Your task to perform on an android device: move an email to a new category in the gmail app Image 0: 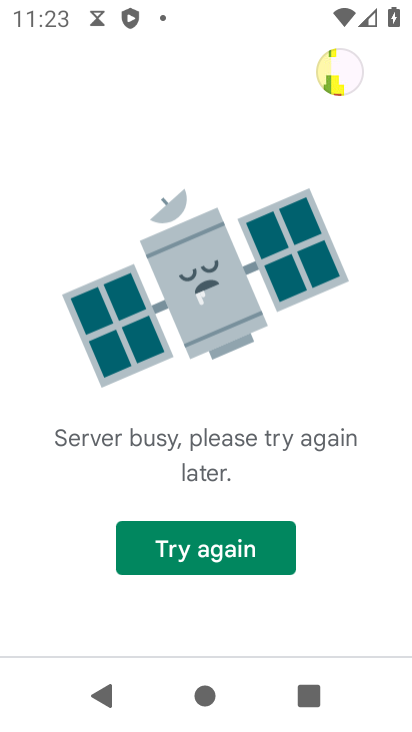
Step 0: press back button
Your task to perform on an android device: move an email to a new category in the gmail app Image 1: 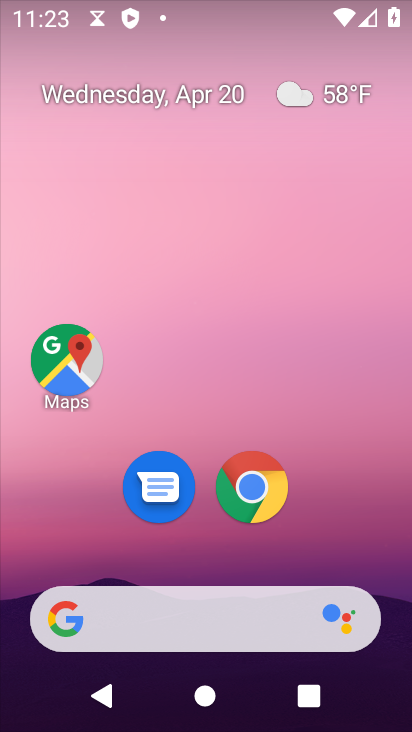
Step 1: drag from (321, 477) to (250, 58)
Your task to perform on an android device: move an email to a new category in the gmail app Image 2: 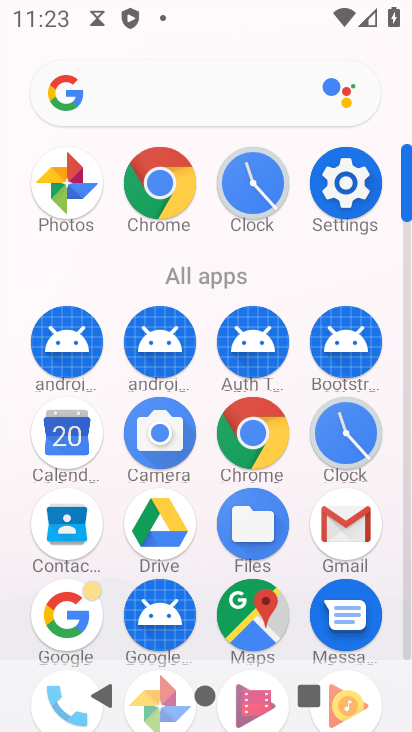
Step 2: drag from (5, 578) to (1, 361)
Your task to perform on an android device: move an email to a new category in the gmail app Image 3: 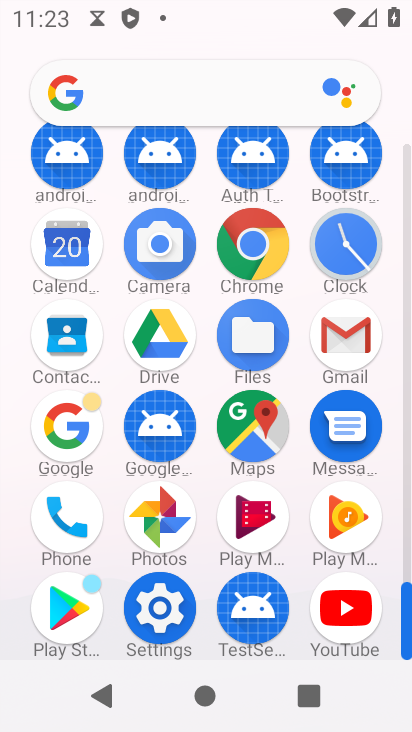
Step 3: click (345, 325)
Your task to perform on an android device: move an email to a new category in the gmail app Image 4: 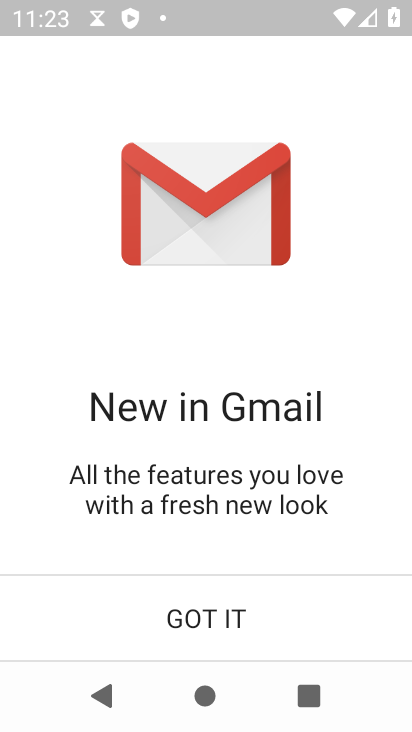
Step 4: click (208, 625)
Your task to perform on an android device: move an email to a new category in the gmail app Image 5: 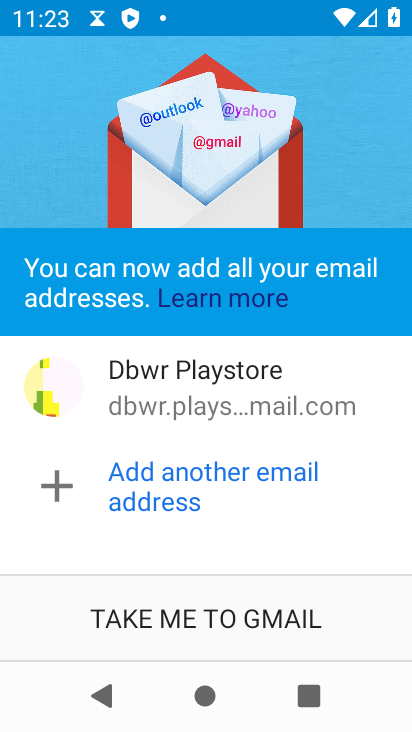
Step 5: click (208, 625)
Your task to perform on an android device: move an email to a new category in the gmail app Image 6: 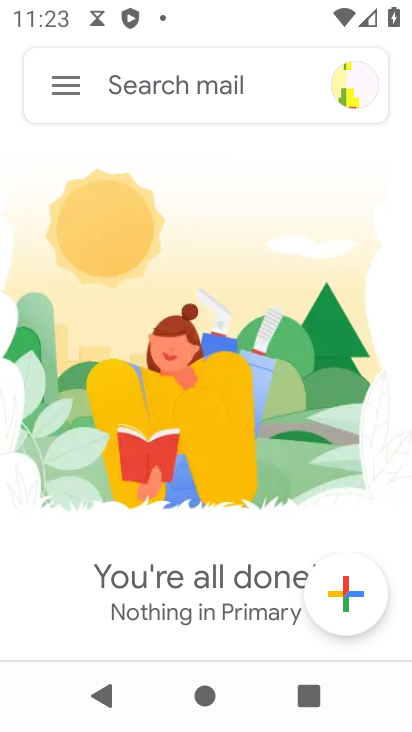
Step 6: click (79, 96)
Your task to perform on an android device: move an email to a new category in the gmail app Image 7: 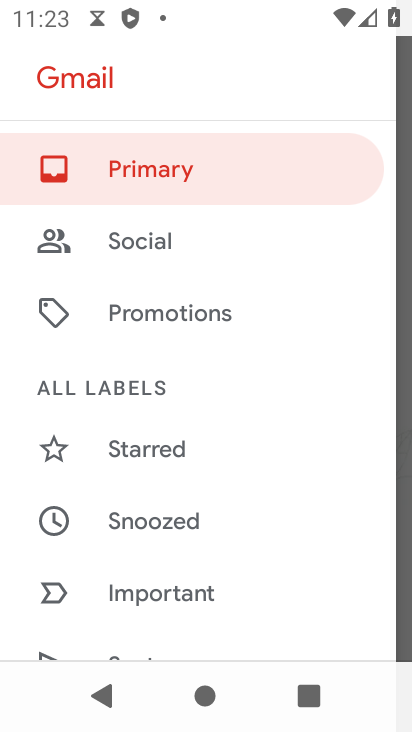
Step 7: drag from (239, 518) to (230, 152)
Your task to perform on an android device: move an email to a new category in the gmail app Image 8: 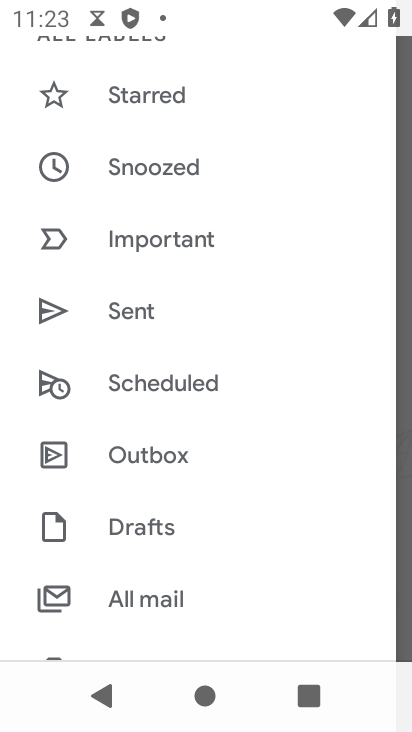
Step 8: drag from (235, 525) to (226, 104)
Your task to perform on an android device: move an email to a new category in the gmail app Image 9: 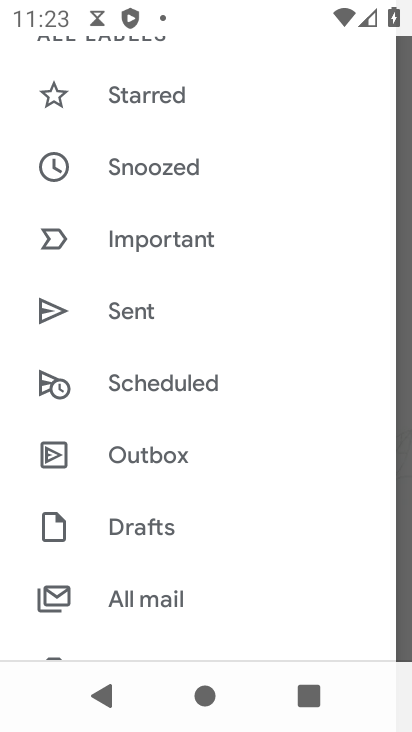
Step 9: drag from (219, 453) to (208, 141)
Your task to perform on an android device: move an email to a new category in the gmail app Image 10: 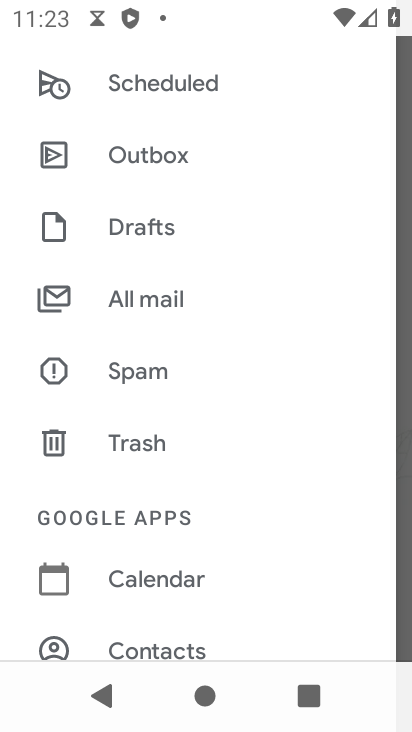
Step 10: drag from (249, 481) to (222, 224)
Your task to perform on an android device: move an email to a new category in the gmail app Image 11: 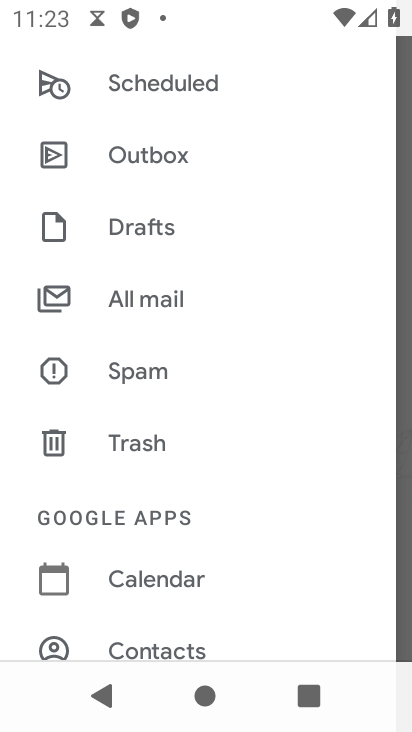
Step 11: drag from (304, 547) to (269, 251)
Your task to perform on an android device: move an email to a new category in the gmail app Image 12: 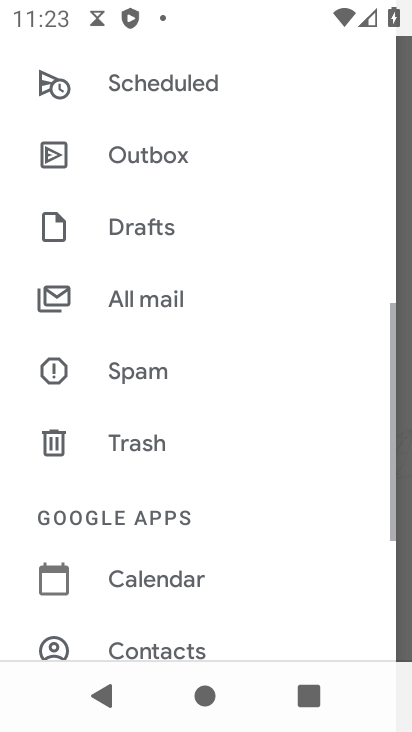
Step 12: click (167, 289)
Your task to perform on an android device: move an email to a new category in the gmail app Image 13: 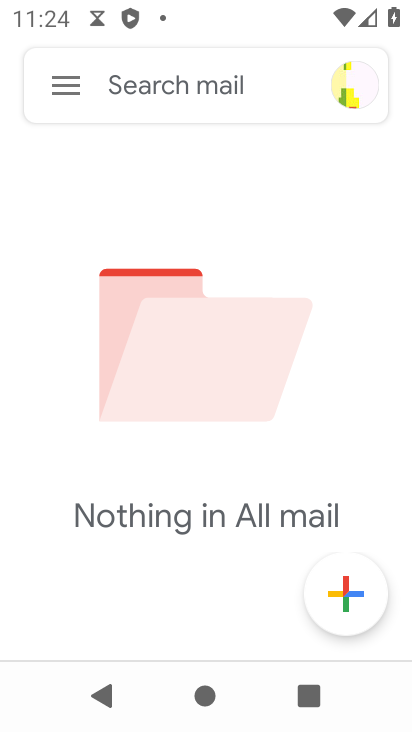
Step 13: click (65, 85)
Your task to perform on an android device: move an email to a new category in the gmail app Image 14: 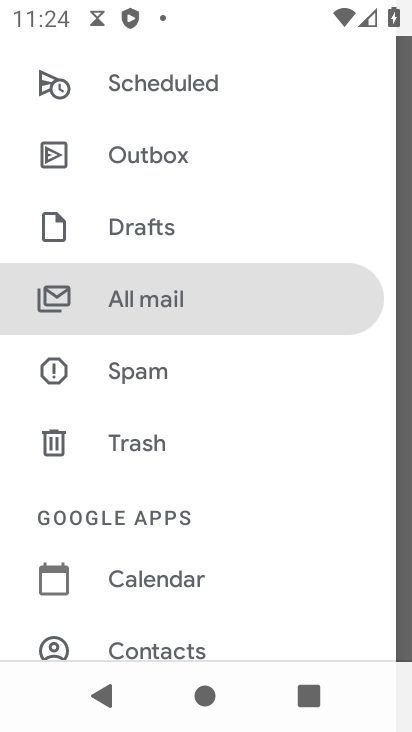
Step 14: drag from (262, 199) to (257, 490)
Your task to perform on an android device: move an email to a new category in the gmail app Image 15: 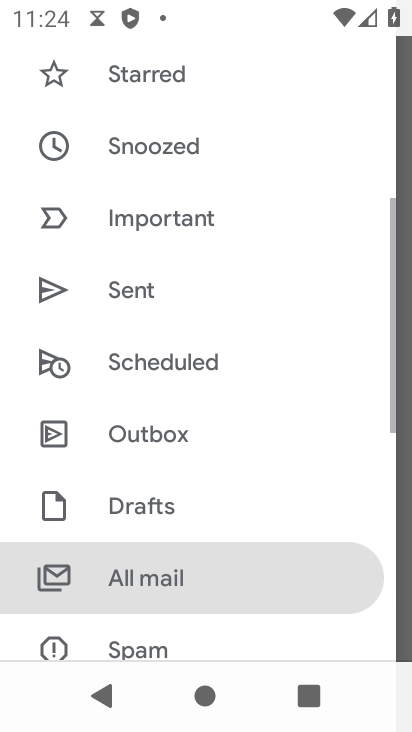
Step 15: drag from (199, 110) to (212, 489)
Your task to perform on an android device: move an email to a new category in the gmail app Image 16: 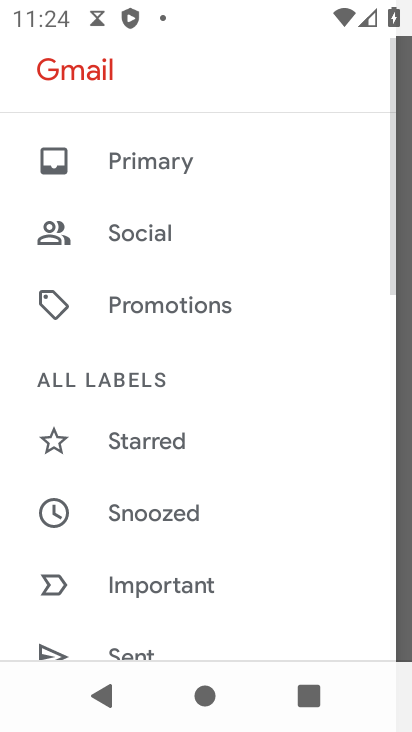
Step 16: drag from (229, 187) to (216, 372)
Your task to perform on an android device: move an email to a new category in the gmail app Image 17: 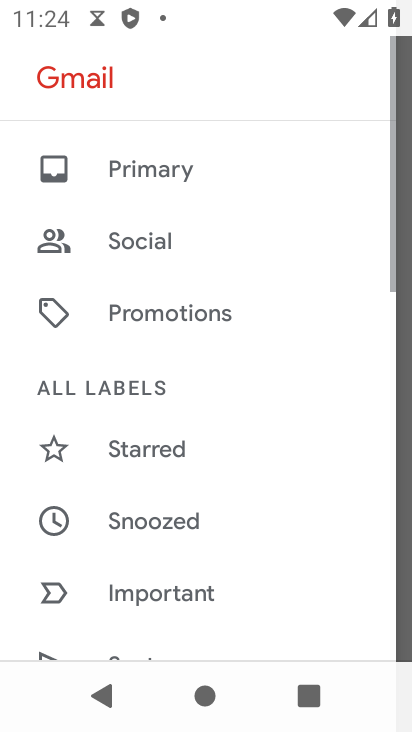
Step 17: click (194, 159)
Your task to perform on an android device: move an email to a new category in the gmail app Image 18: 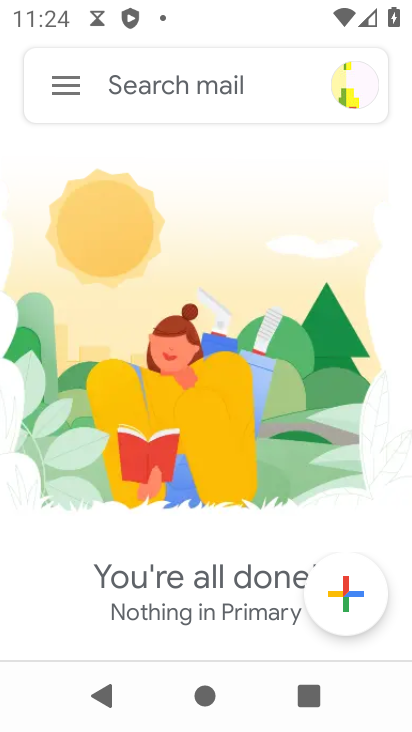
Step 18: task complete